Your task to perform on an android device: delete the emails in spam in the gmail app Image 0: 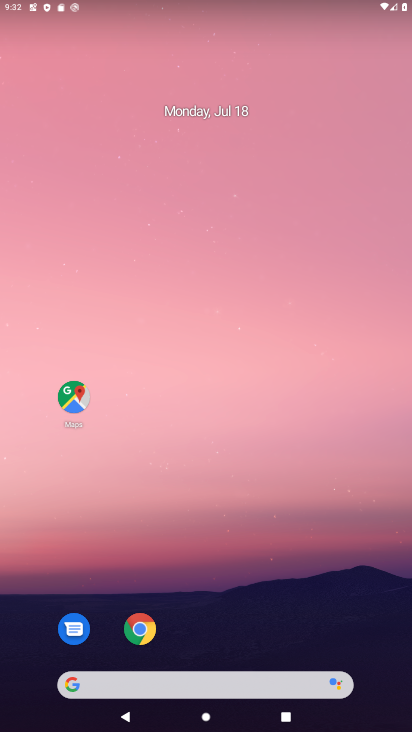
Step 0: drag from (304, 647) to (251, 168)
Your task to perform on an android device: delete the emails in spam in the gmail app Image 1: 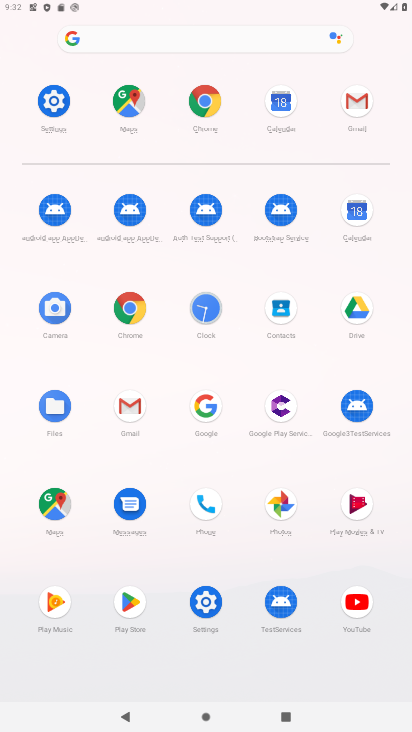
Step 1: click (126, 411)
Your task to perform on an android device: delete the emails in spam in the gmail app Image 2: 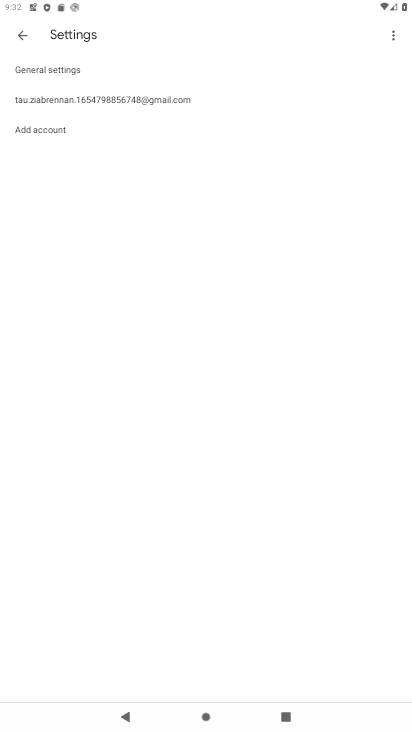
Step 2: click (20, 29)
Your task to perform on an android device: delete the emails in spam in the gmail app Image 3: 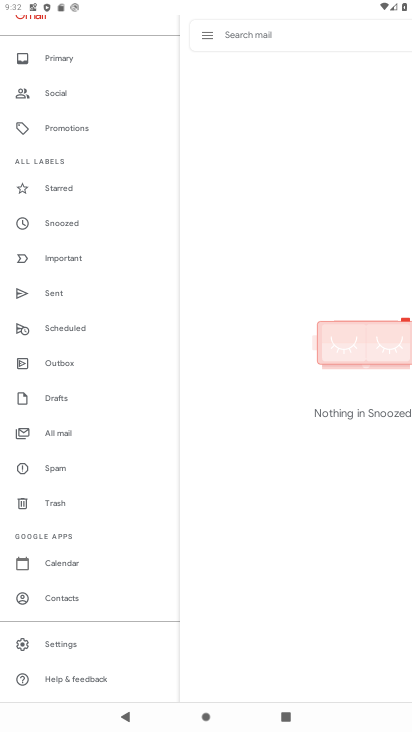
Step 3: click (67, 463)
Your task to perform on an android device: delete the emails in spam in the gmail app Image 4: 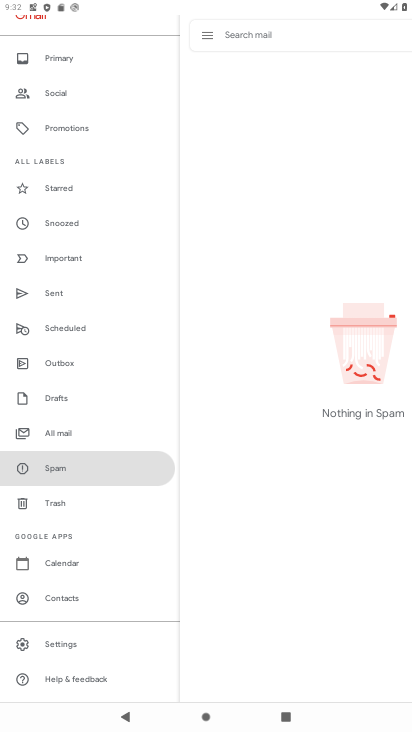
Step 4: task complete